Your task to perform on an android device: Turn off the flashlight Image 0: 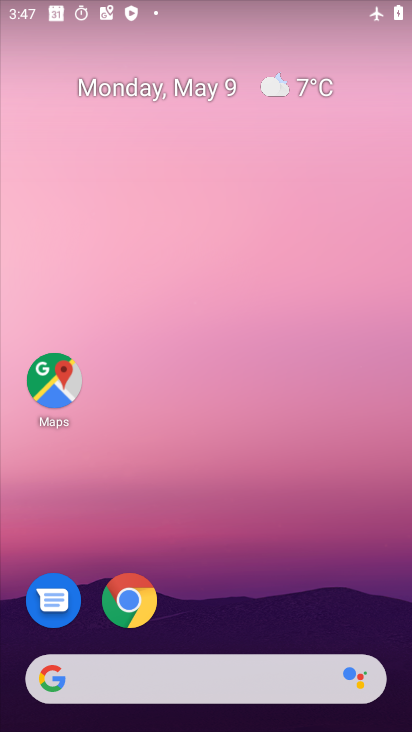
Step 0: drag from (252, 2) to (256, 354)
Your task to perform on an android device: Turn off the flashlight Image 1: 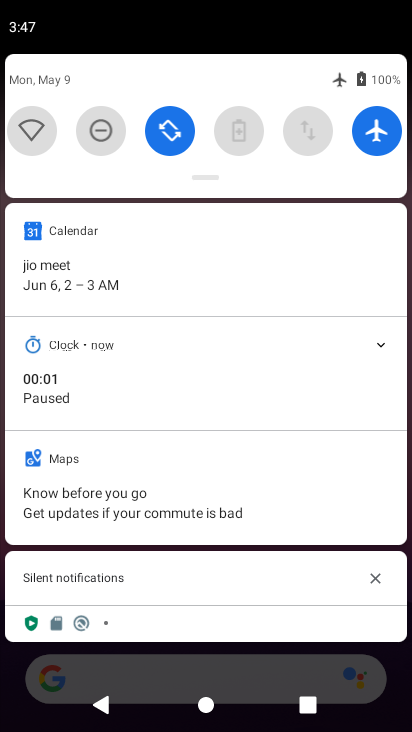
Step 1: task complete